Your task to perform on an android device: Open privacy settings Image 0: 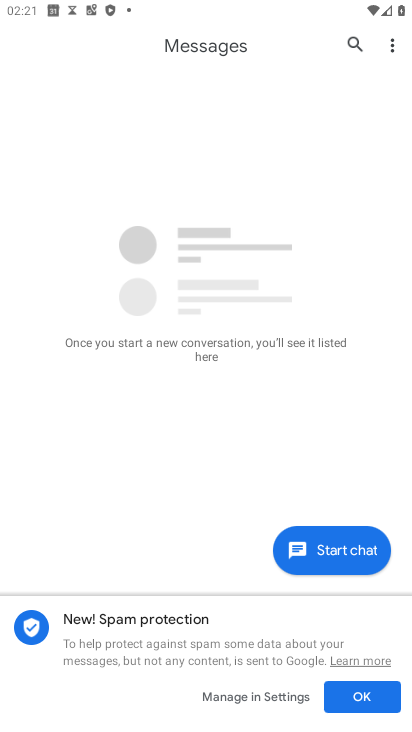
Step 0: press home button
Your task to perform on an android device: Open privacy settings Image 1: 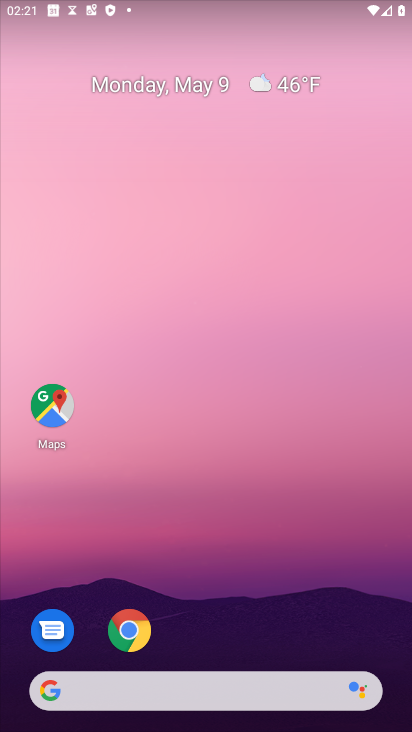
Step 1: drag from (241, 586) to (213, 53)
Your task to perform on an android device: Open privacy settings Image 2: 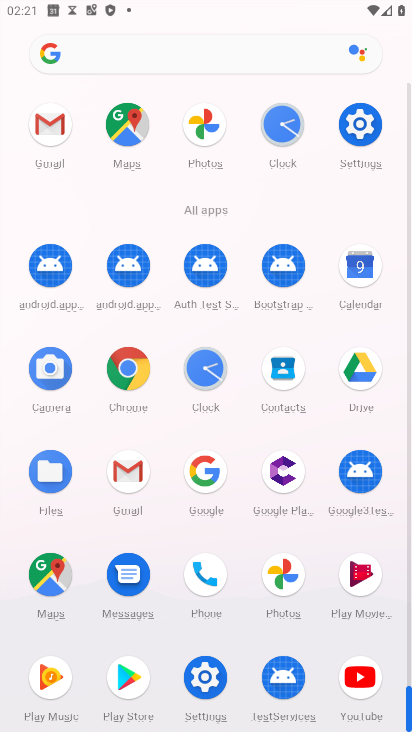
Step 2: click (359, 122)
Your task to perform on an android device: Open privacy settings Image 3: 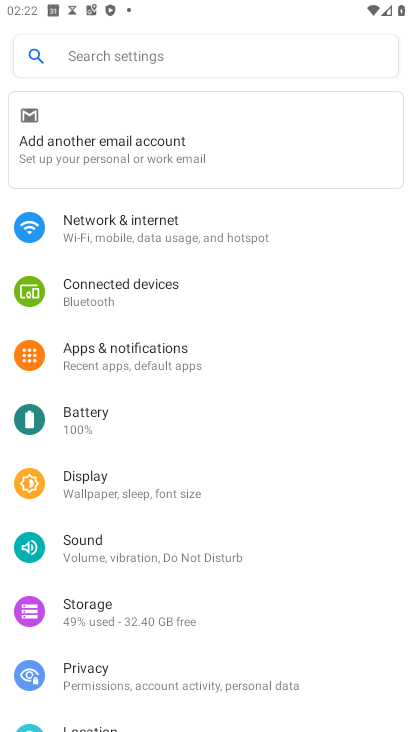
Step 3: click (77, 672)
Your task to perform on an android device: Open privacy settings Image 4: 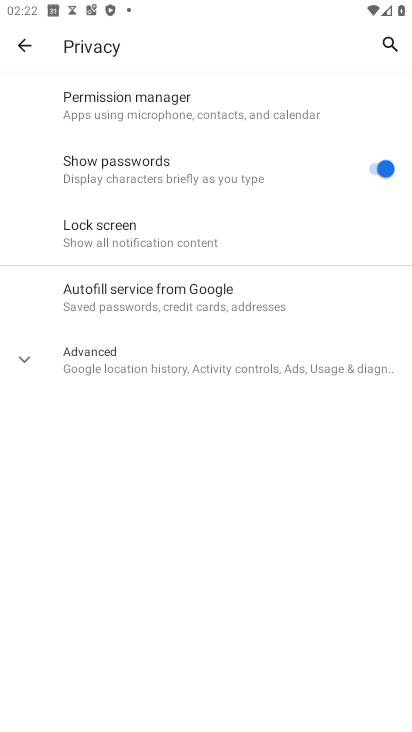
Step 4: task complete